Your task to perform on an android device: turn off priority inbox in the gmail app Image 0: 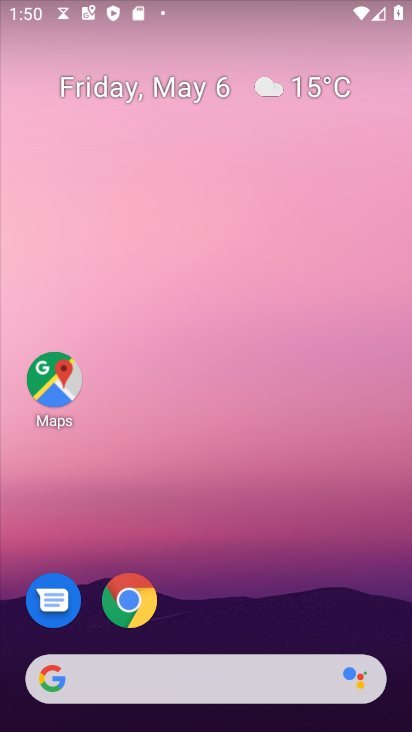
Step 0: drag from (253, 579) to (218, 39)
Your task to perform on an android device: turn off priority inbox in the gmail app Image 1: 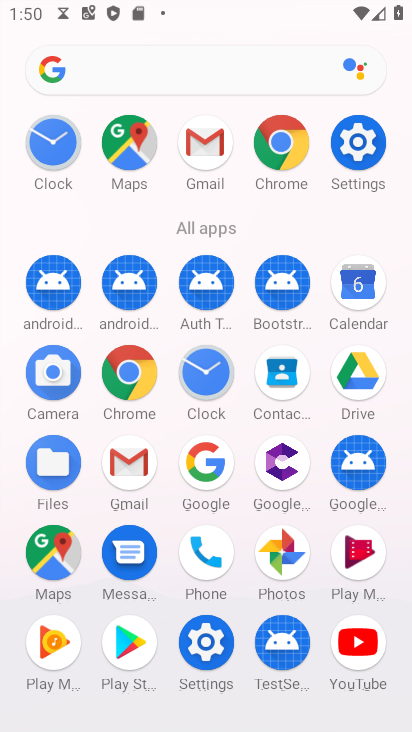
Step 1: drag from (8, 609) to (6, 230)
Your task to perform on an android device: turn off priority inbox in the gmail app Image 2: 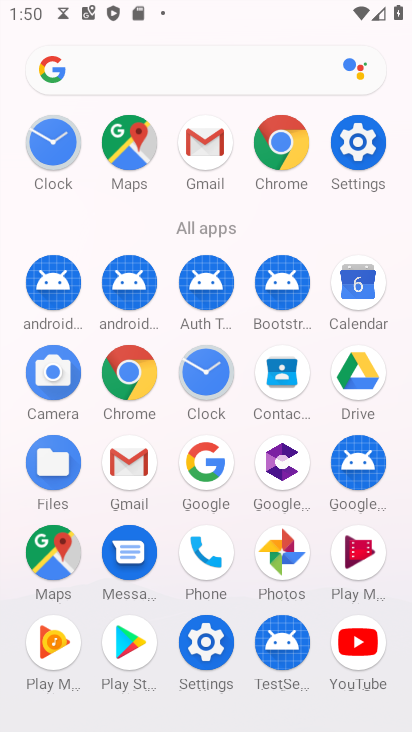
Step 2: click (128, 456)
Your task to perform on an android device: turn off priority inbox in the gmail app Image 3: 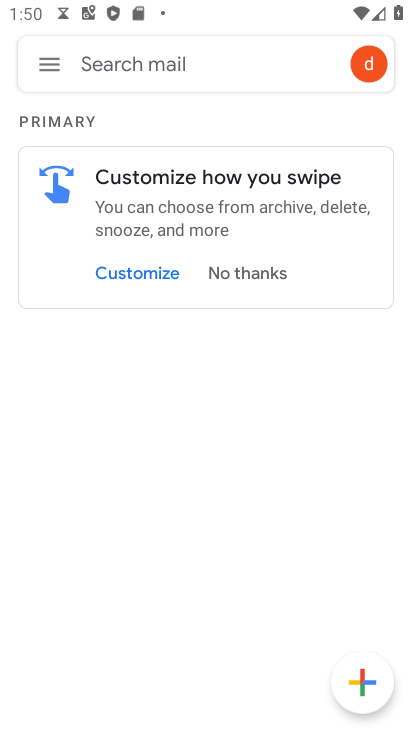
Step 3: click (206, 273)
Your task to perform on an android device: turn off priority inbox in the gmail app Image 4: 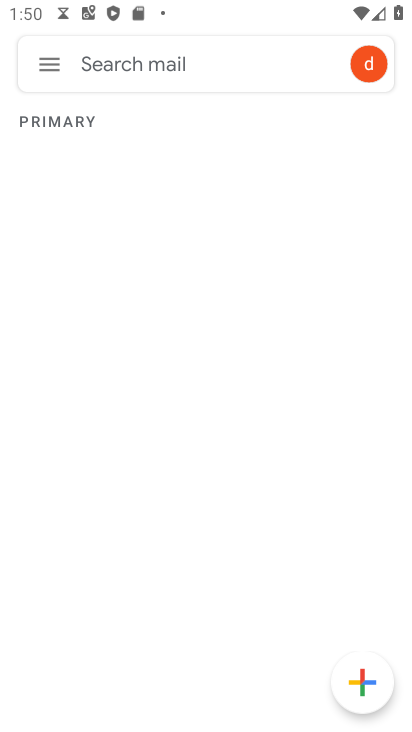
Step 4: click (39, 74)
Your task to perform on an android device: turn off priority inbox in the gmail app Image 5: 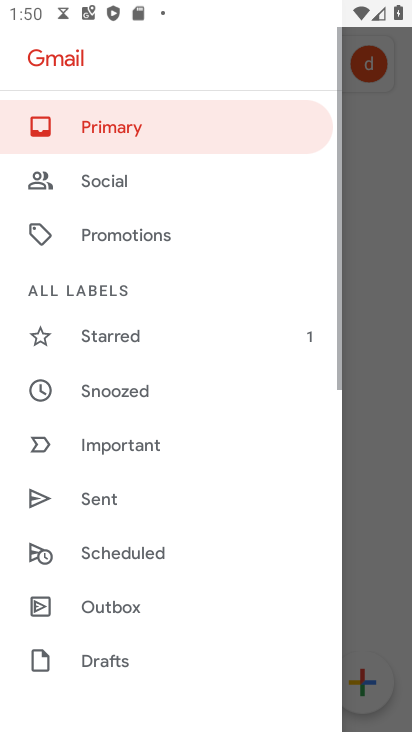
Step 5: drag from (133, 558) to (182, 142)
Your task to perform on an android device: turn off priority inbox in the gmail app Image 6: 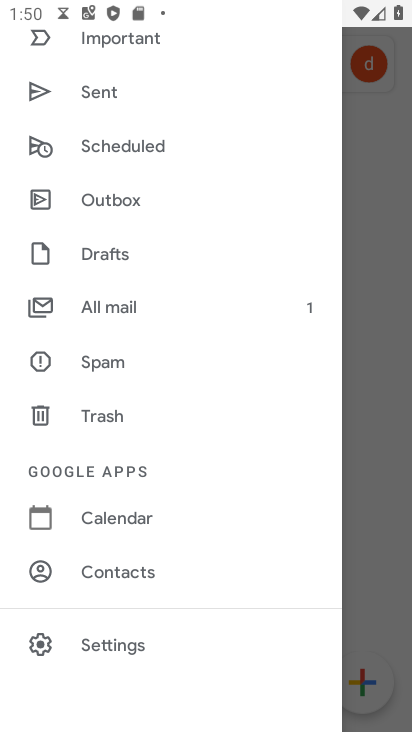
Step 6: drag from (210, 581) to (227, 178)
Your task to perform on an android device: turn off priority inbox in the gmail app Image 7: 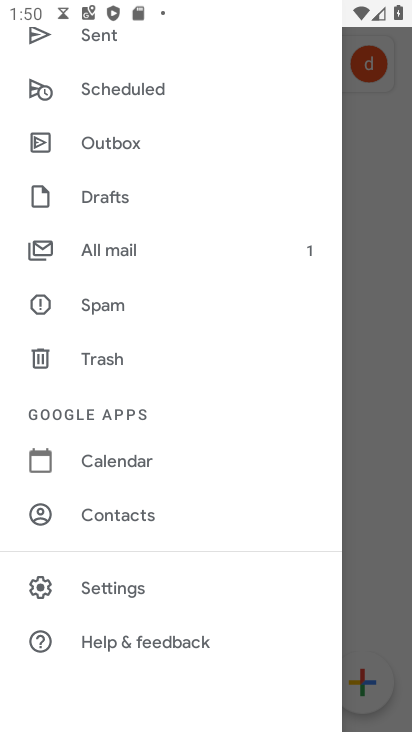
Step 7: click (127, 582)
Your task to perform on an android device: turn off priority inbox in the gmail app Image 8: 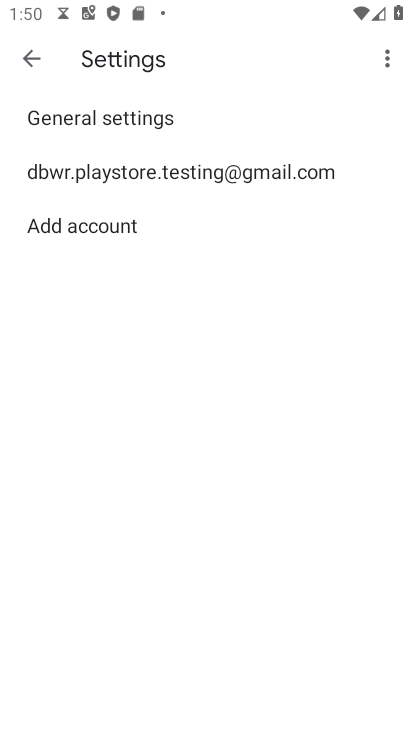
Step 8: click (168, 159)
Your task to perform on an android device: turn off priority inbox in the gmail app Image 9: 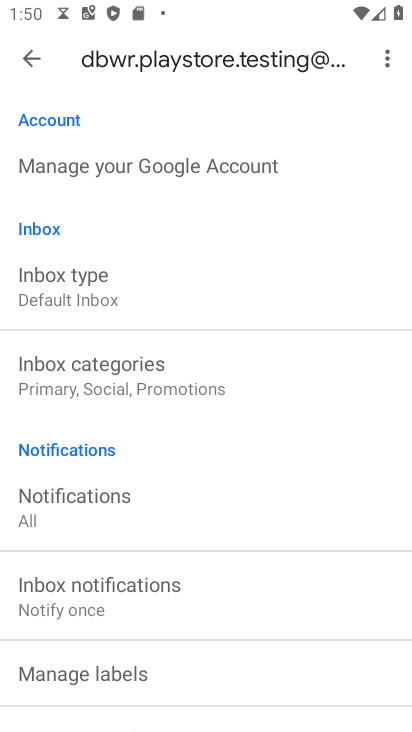
Step 9: drag from (217, 550) to (225, 169)
Your task to perform on an android device: turn off priority inbox in the gmail app Image 10: 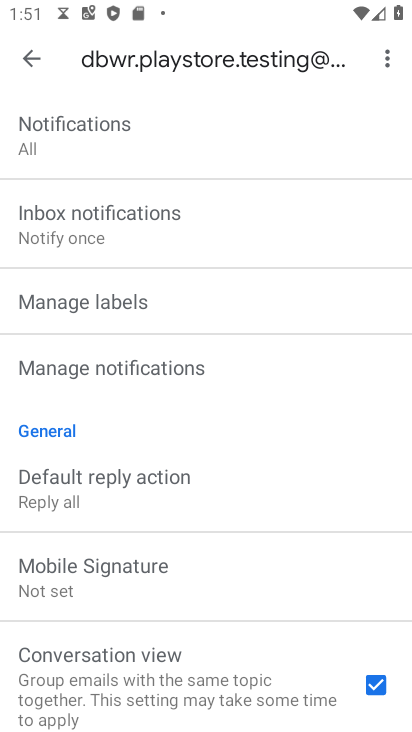
Step 10: drag from (203, 540) to (216, 233)
Your task to perform on an android device: turn off priority inbox in the gmail app Image 11: 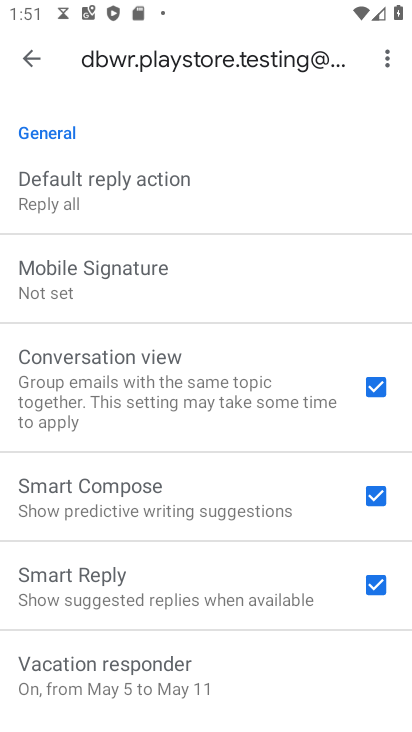
Step 11: drag from (183, 631) to (237, 217)
Your task to perform on an android device: turn off priority inbox in the gmail app Image 12: 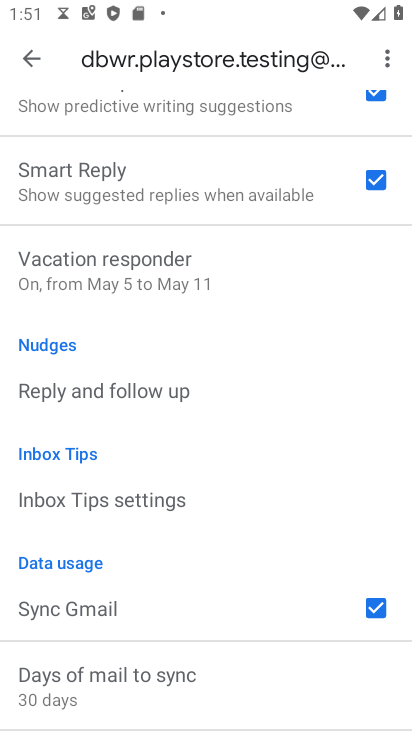
Step 12: drag from (234, 614) to (260, 233)
Your task to perform on an android device: turn off priority inbox in the gmail app Image 13: 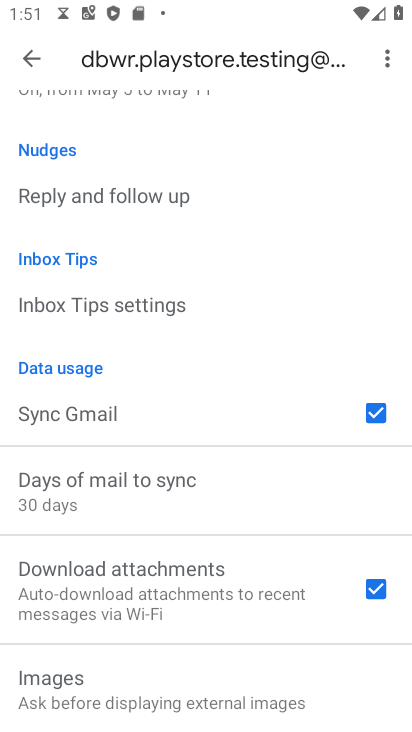
Step 13: drag from (252, 362) to (248, 675)
Your task to perform on an android device: turn off priority inbox in the gmail app Image 14: 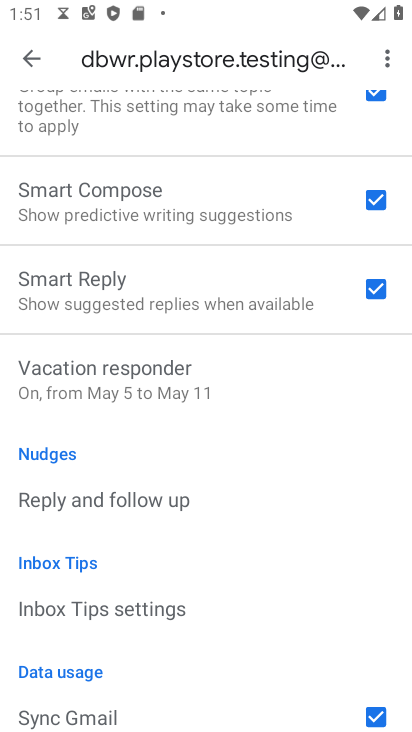
Step 14: drag from (231, 227) to (209, 683)
Your task to perform on an android device: turn off priority inbox in the gmail app Image 15: 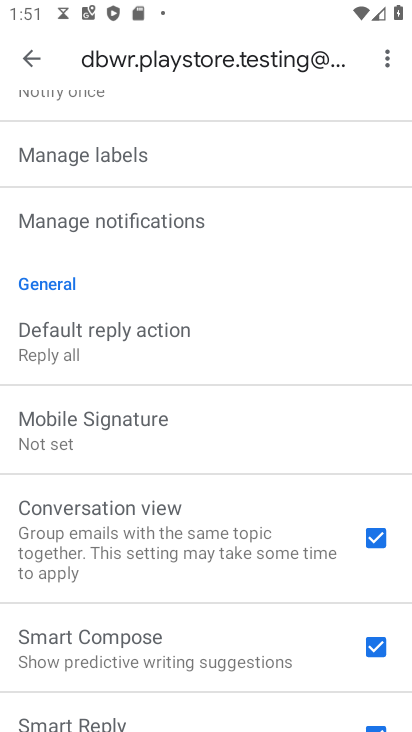
Step 15: drag from (193, 240) to (181, 703)
Your task to perform on an android device: turn off priority inbox in the gmail app Image 16: 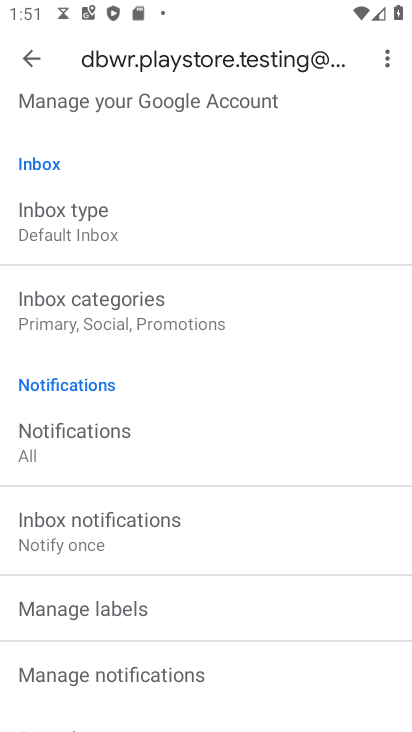
Step 16: drag from (217, 231) to (203, 586)
Your task to perform on an android device: turn off priority inbox in the gmail app Image 17: 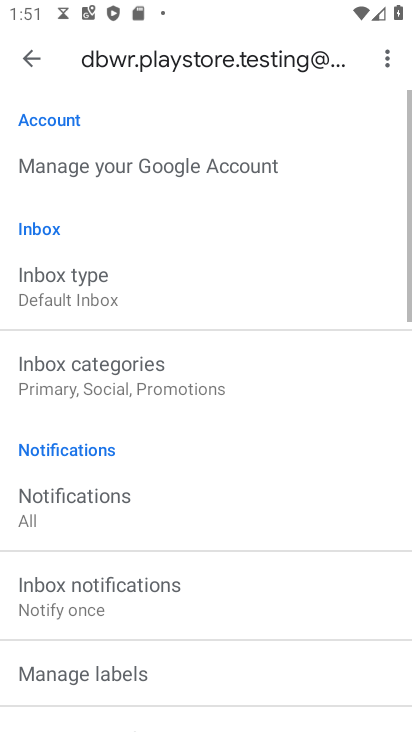
Step 17: drag from (227, 653) to (268, 211)
Your task to perform on an android device: turn off priority inbox in the gmail app Image 18: 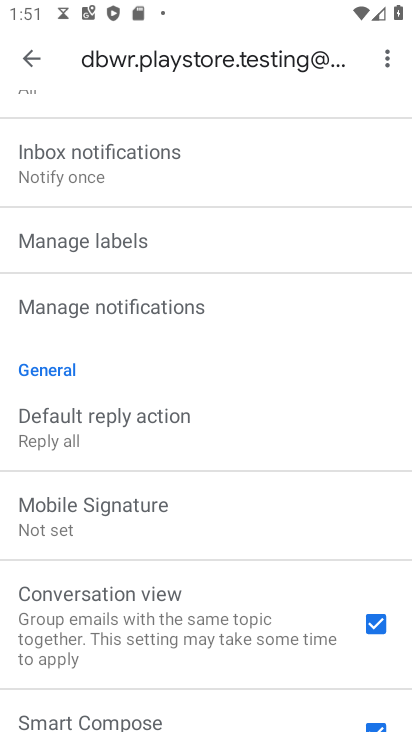
Step 18: drag from (225, 516) to (247, 74)
Your task to perform on an android device: turn off priority inbox in the gmail app Image 19: 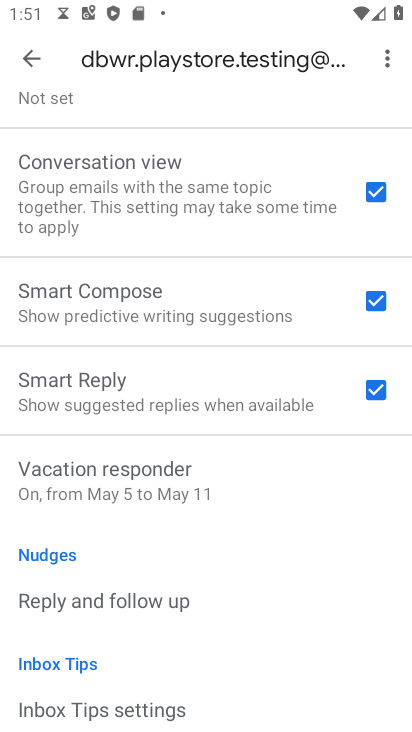
Step 19: drag from (231, 572) to (266, 138)
Your task to perform on an android device: turn off priority inbox in the gmail app Image 20: 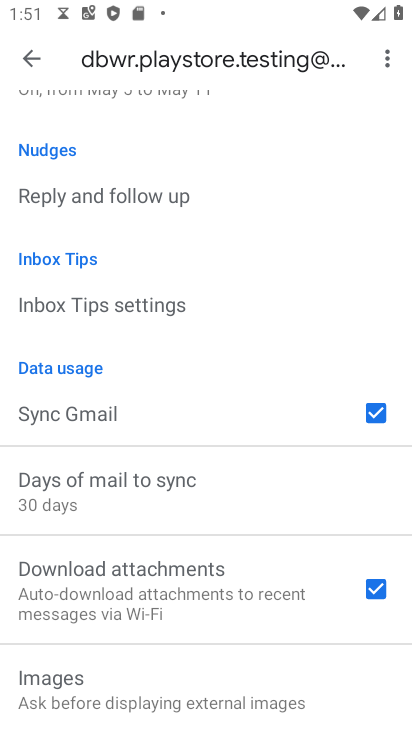
Step 20: drag from (214, 598) to (220, 225)
Your task to perform on an android device: turn off priority inbox in the gmail app Image 21: 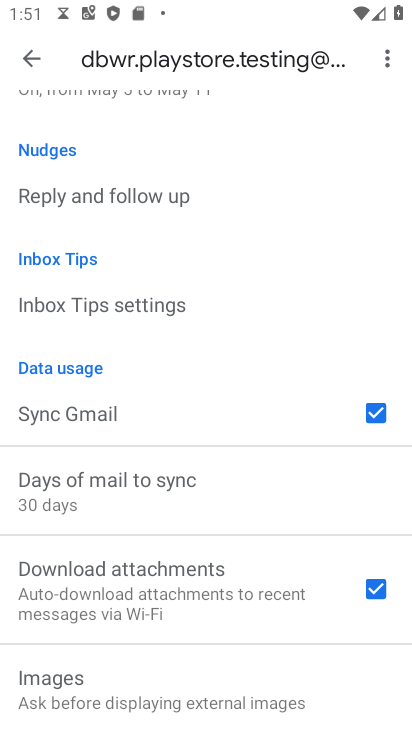
Step 21: drag from (227, 187) to (247, 557)
Your task to perform on an android device: turn off priority inbox in the gmail app Image 22: 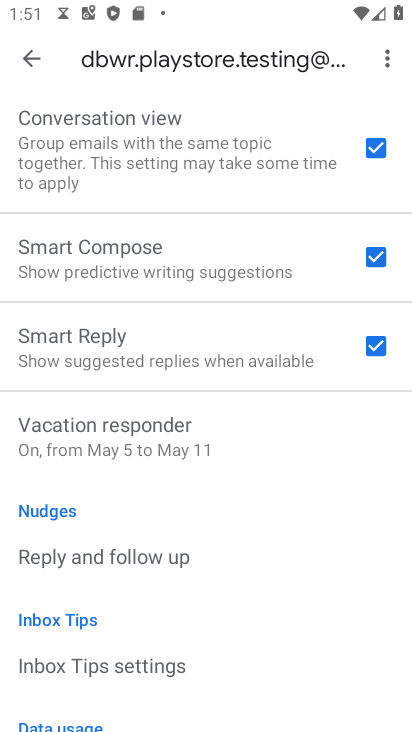
Step 22: drag from (217, 187) to (185, 635)
Your task to perform on an android device: turn off priority inbox in the gmail app Image 23: 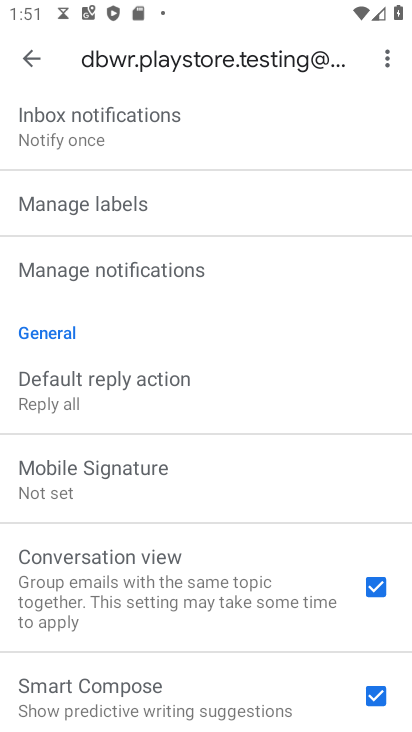
Step 23: drag from (101, 145) to (121, 516)
Your task to perform on an android device: turn off priority inbox in the gmail app Image 24: 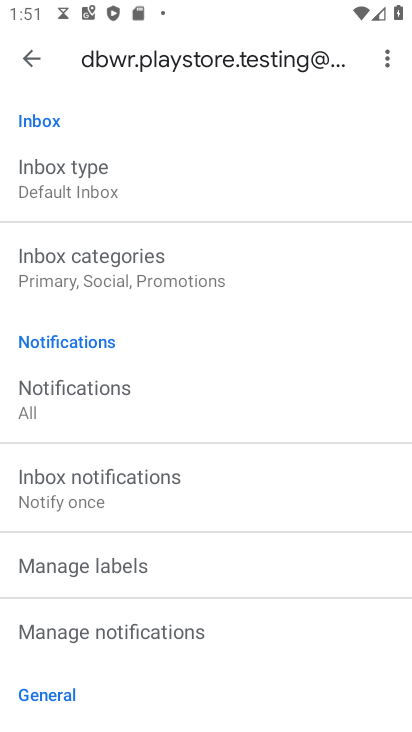
Step 24: drag from (136, 232) to (156, 630)
Your task to perform on an android device: turn off priority inbox in the gmail app Image 25: 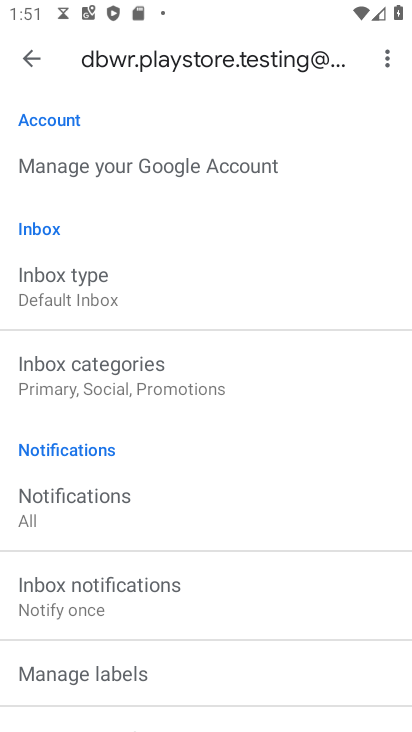
Step 25: click (41, 45)
Your task to perform on an android device: turn off priority inbox in the gmail app Image 26: 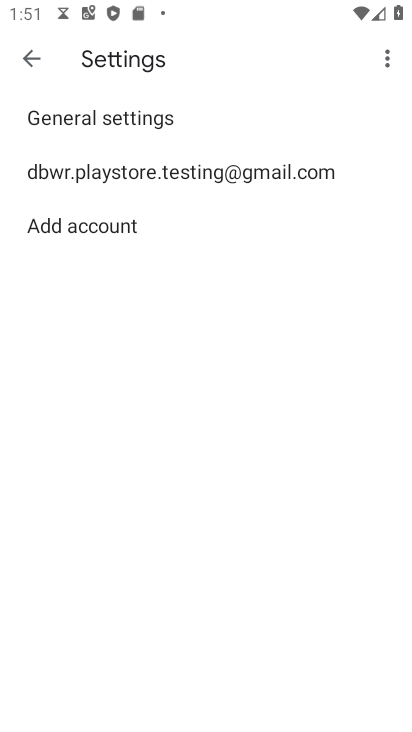
Step 26: click (100, 186)
Your task to perform on an android device: turn off priority inbox in the gmail app Image 27: 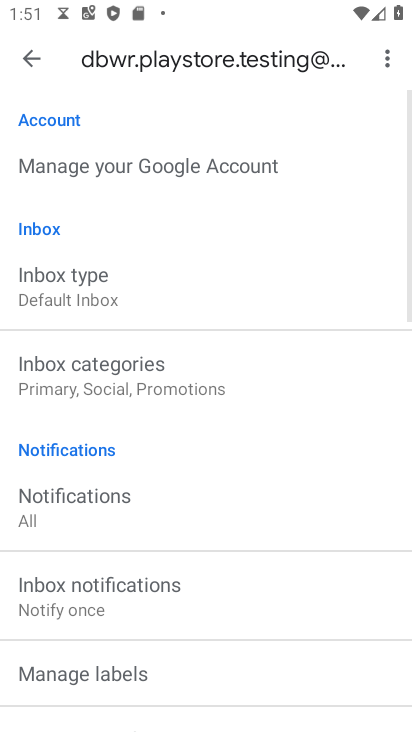
Step 27: click (109, 291)
Your task to perform on an android device: turn off priority inbox in the gmail app Image 28: 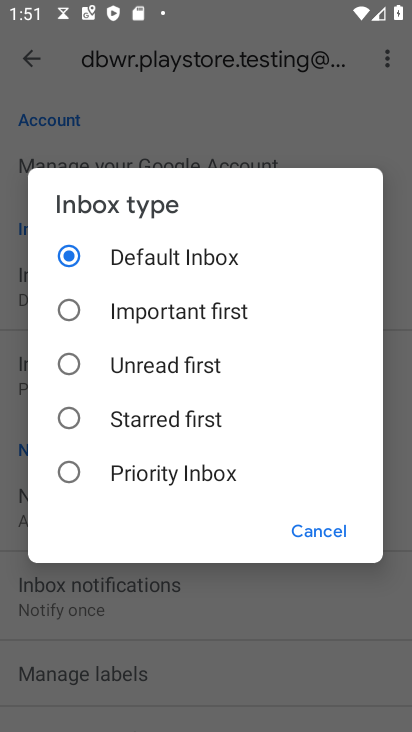
Step 28: click (186, 268)
Your task to perform on an android device: turn off priority inbox in the gmail app Image 29: 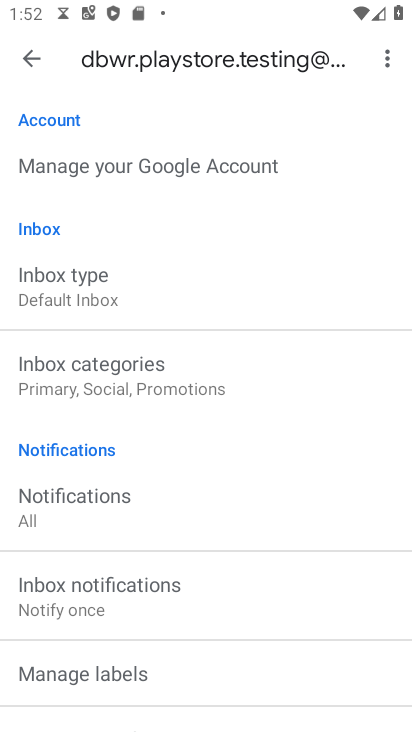
Step 29: task complete